Your task to perform on an android device: add a label to a message in the gmail app Image 0: 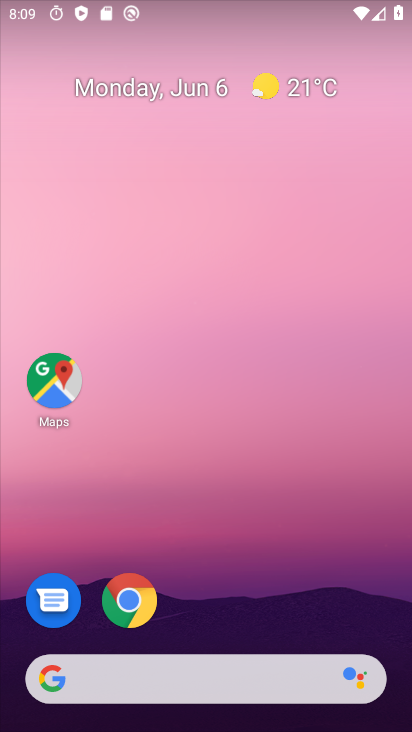
Step 0: drag from (172, 426) to (161, 0)
Your task to perform on an android device: add a label to a message in the gmail app Image 1: 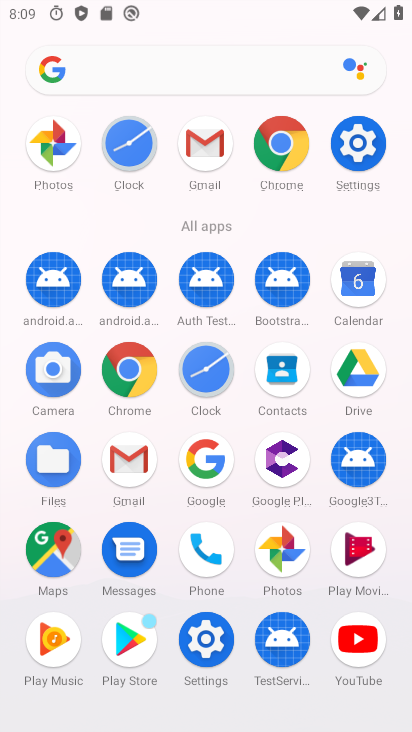
Step 1: drag from (11, 517) to (8, 272)
Your task to perform on an android device: add a label to a message in the gmail app Image 2: 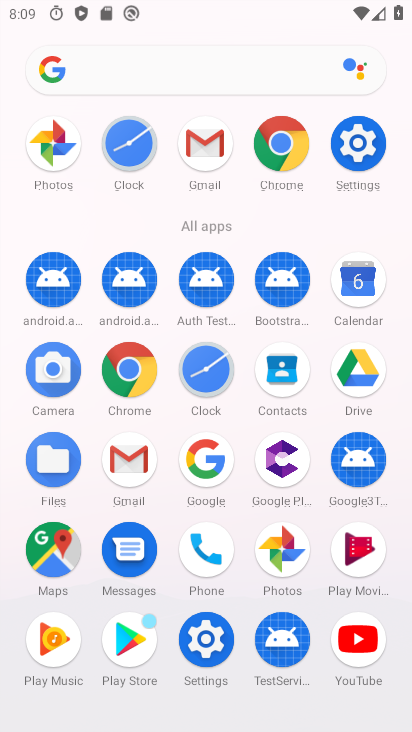
Step 2: click (127, 458)
Your task to perform on an android device: add a label to a message in the gmail app Image 3: 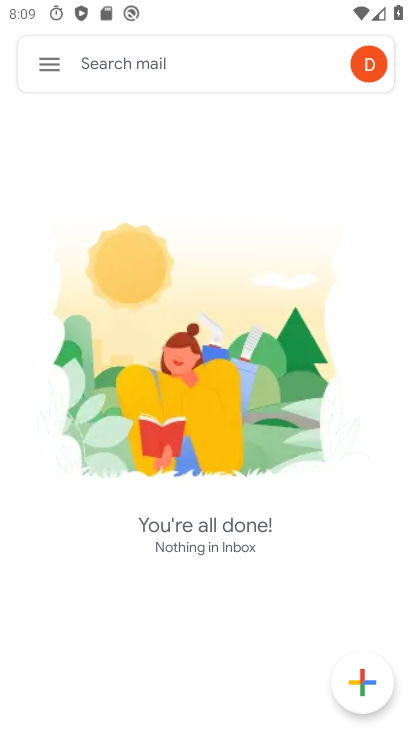
Step 3: click (49, 52)
Your task to perform on an android device: add a label to a message in the gmail app Image 4: 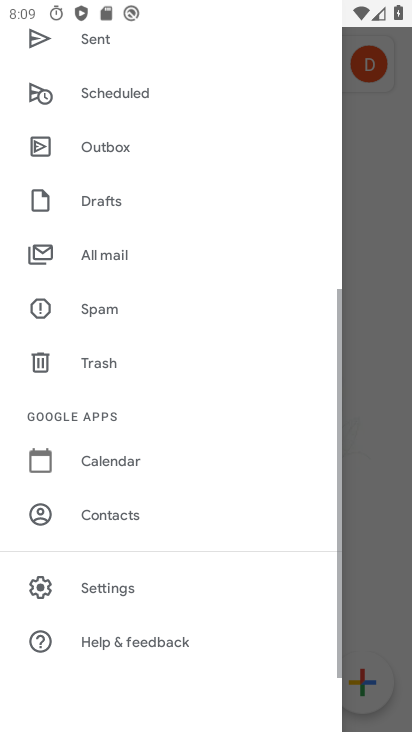
Step 4: drag from (213, 593) to (257, 160)
Your task to perform on an android device: add a label to a message in the gmail app Image 5: 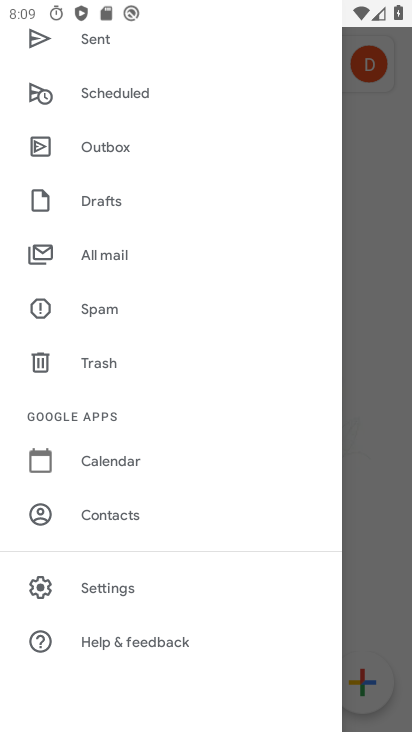
Step 5: click (118, 589)
Your task to perform on an android device: add a label to a message in the gmail app Image 6: 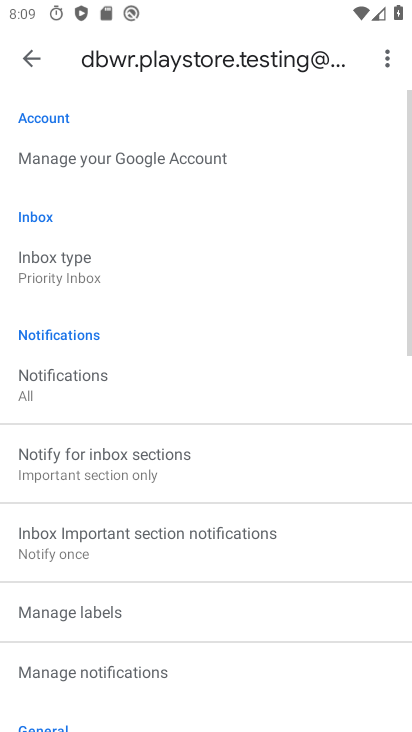
Step 6: click (41, 67)
Your task to perform on an android device: add a label to a message in the gmail app Image 7: 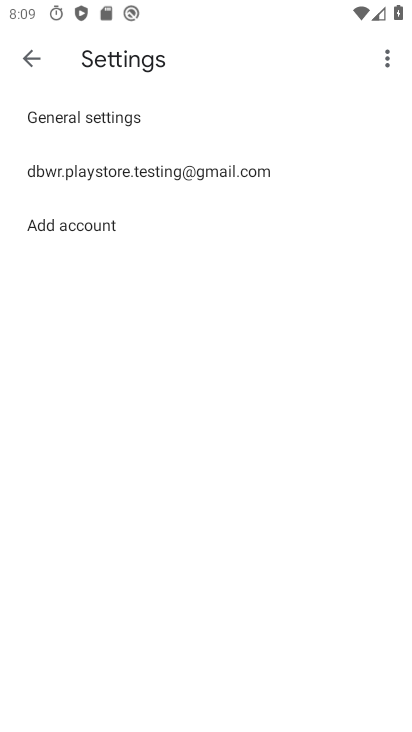
Step 7: click (41, 67)
Your task to perform on an android device: add a label to a message in the gmail app Image 8: 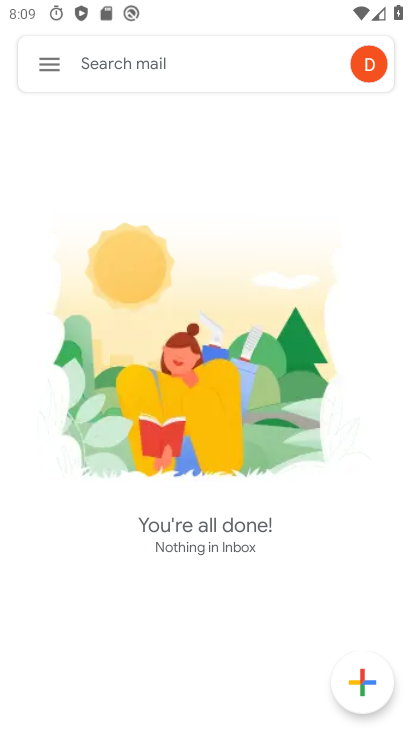
Step 8: click (52, 70)
Your task to perform on an android device: add a label to a message in the gmail app Image 9: 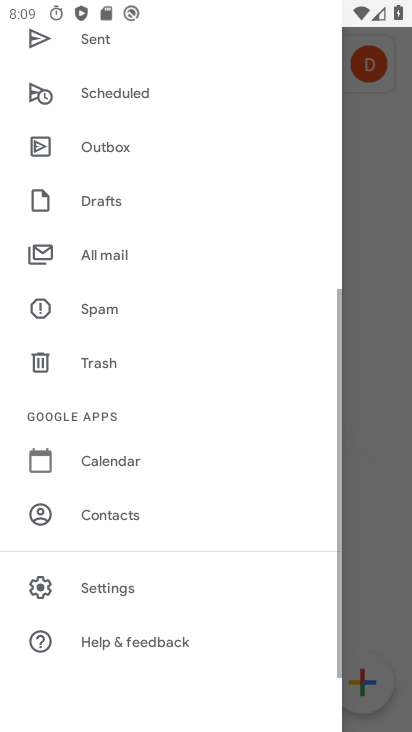
Step 9: drag from (250, 136) to (266, 584)
Your task to perform on an android device: add a label to a message in the gmail app Image 10: 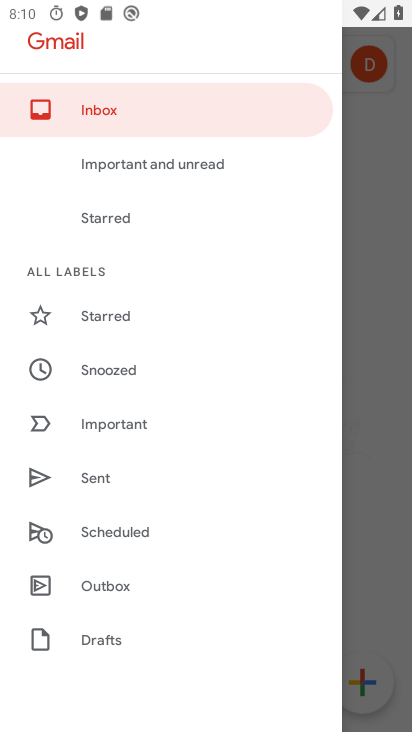
Step 10: drag from (205, 584) to (253, 259)
Your task to perform on an android device: add a label to a message in the gmail app Image 11: 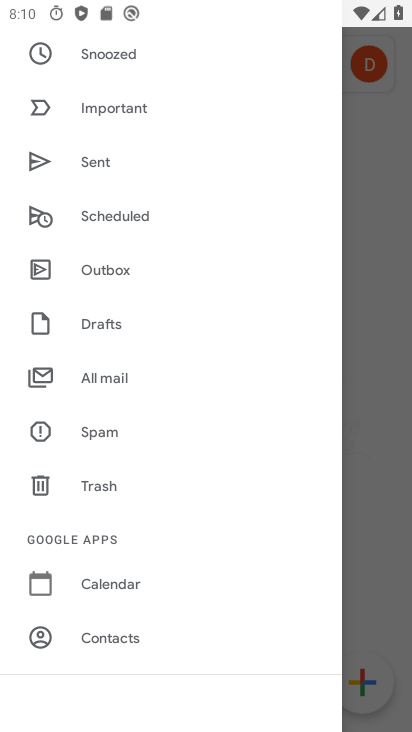
Step 11: drag from (247, 265) to (192, 596)
Your task to perform on an android device: add a label to a message in the gmail app Image 12: 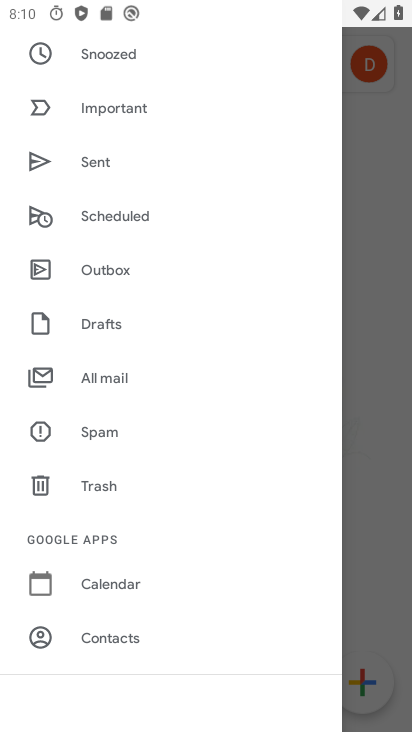
Step 12: click (107, 379)
Your task to perform on an android device: add a label to a message in the gmail app Image 13: 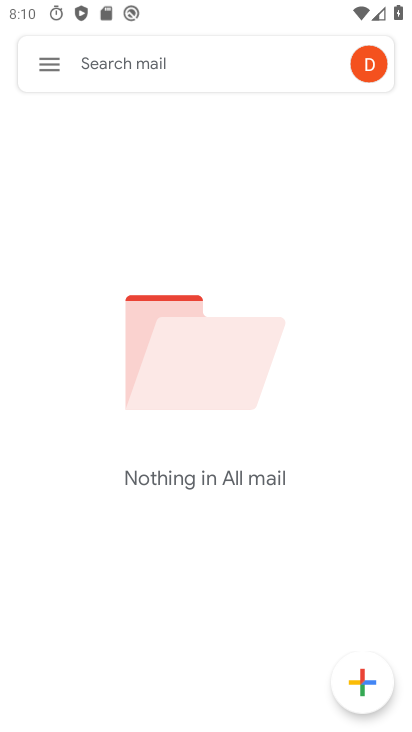
Step 13: task complete